Your task to perform on an android device: turn notification dots on Image 0: 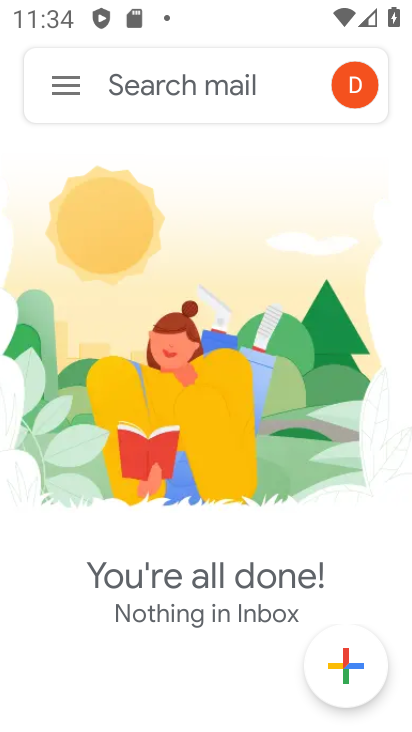
Step 0: press home button
Your task to perform on an android device: turn notification dots on Image 1: 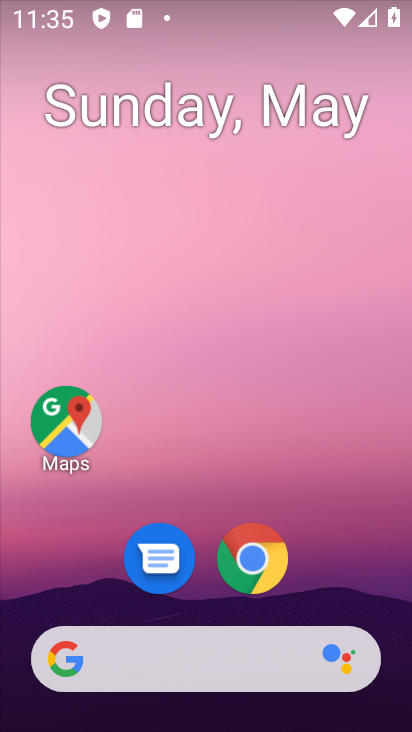
Step 1: drag from (379, 582) to (365, 137)
Your task to perform on an android device: turn notification dots on Image 2: 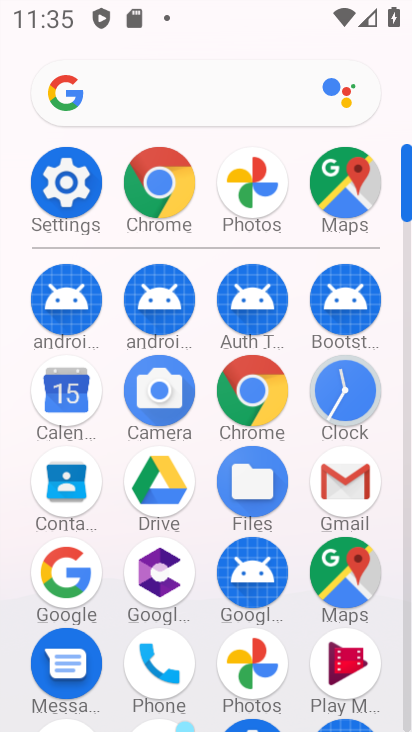
Step 2: click (74, 192)
Your task to perform on an android device: turn notification dots on Image 3: 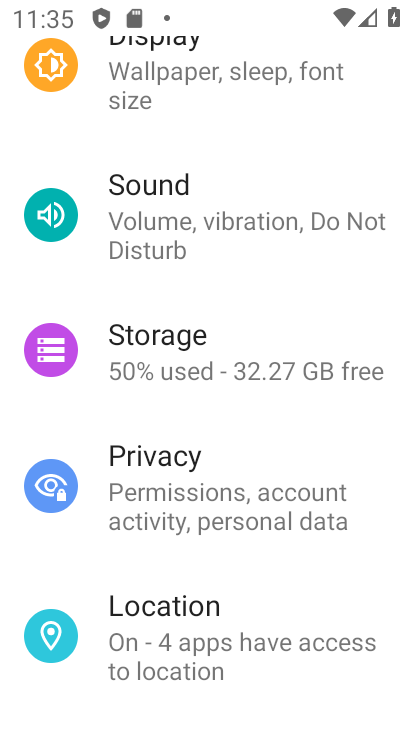
Step 3: drag from (351, 282) to (351, 566)
Your task to perform on an android device: turn notification dots on Image 4: 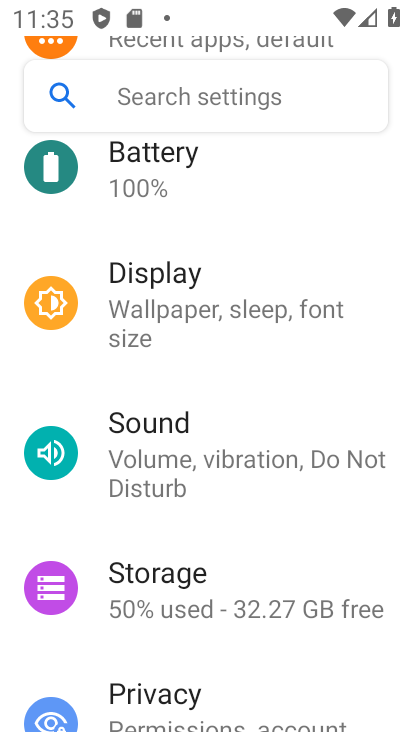
Step 4: drag from (371, 180) to (356, 457)
Your task to perform on an android device: turn notification dots on Image 5: 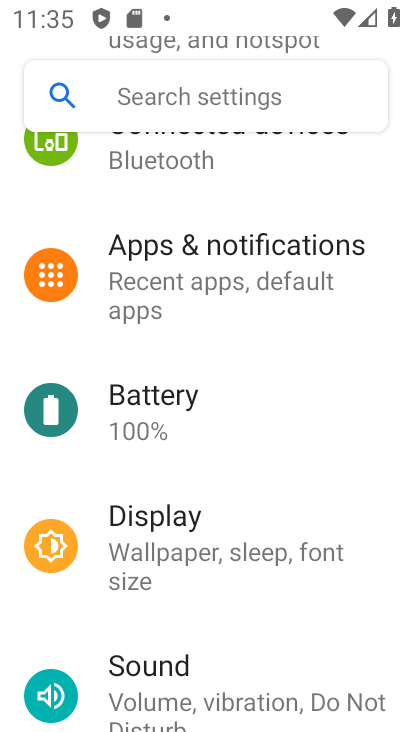
Step 5: drag from (360, 301) to (335, 545)
Your task to perform on an android device: turn notification dots on Image 6: 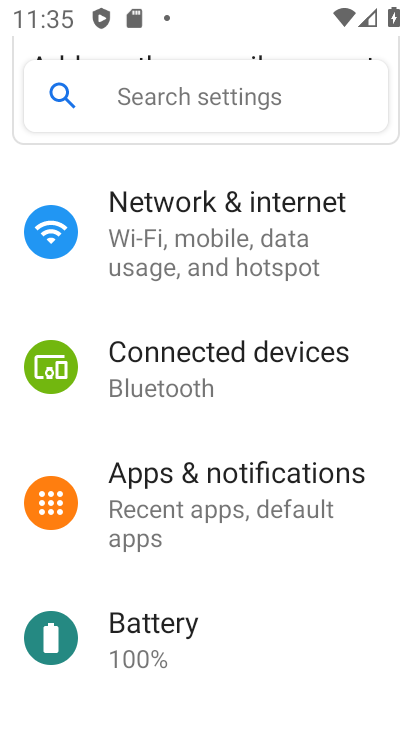
Step 6: drag from (384, 288) to (365, 542)
Your task to perform on an android device: turn notification dots on Image 7: 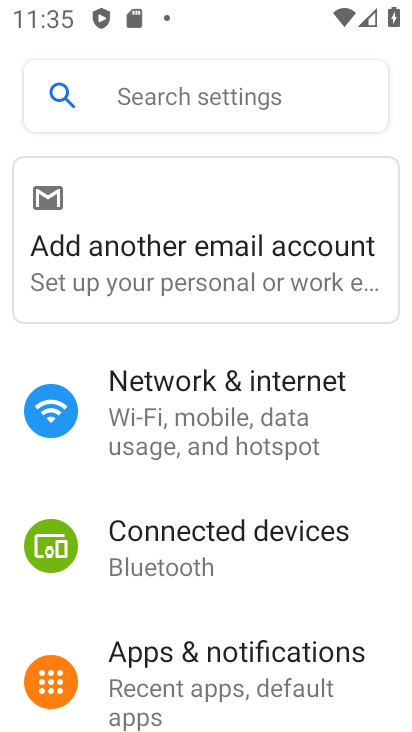
Step 7: drag from (362, 578) to (379, 423)
Your task to perform on an android device: turn notification dots on Image 8: 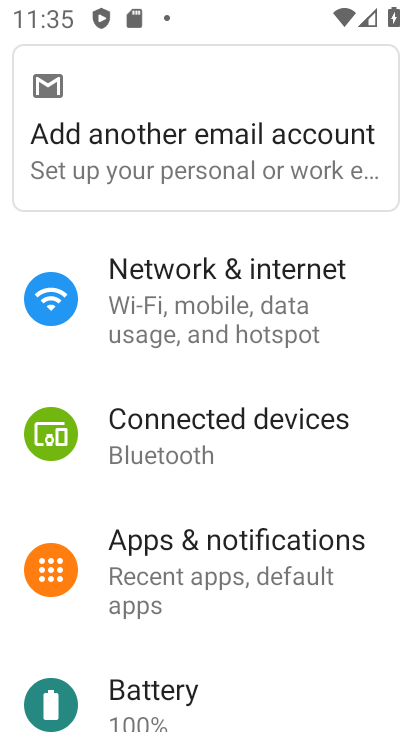
Step 8: click (255, 572)
Your task to perform on an android device: turn notification dots on Image 9: 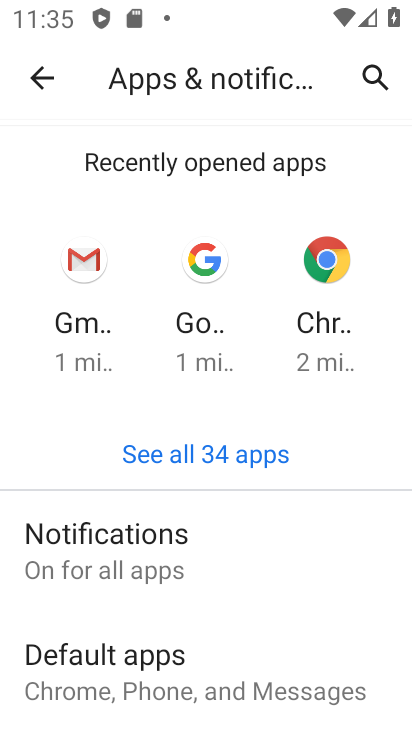
Step 9: drag from (253, 573) to (250, 379)
Your task to perform on an android device: turn notification dots on Image 10: 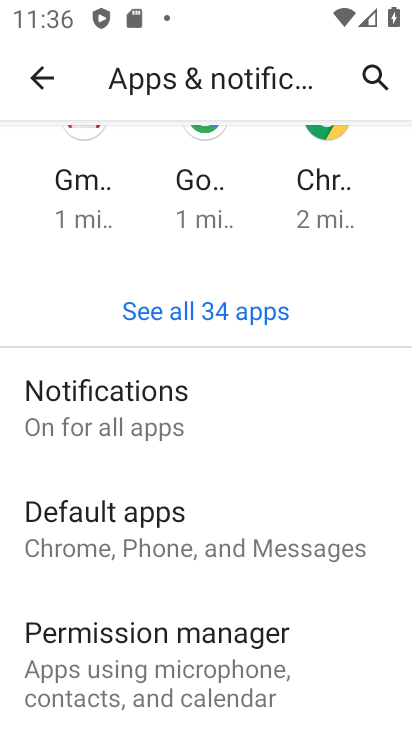
Step 10: drag from (341, 658) to (352, 386)
Your task to perform on an android device: turn notification dots on Image 11: 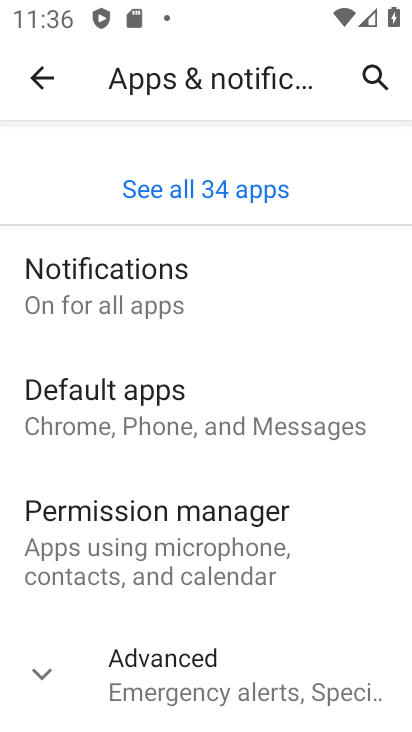
Step 11: click (86, 289)
Your task to perform on an android device: turn notification dots on Image 12: 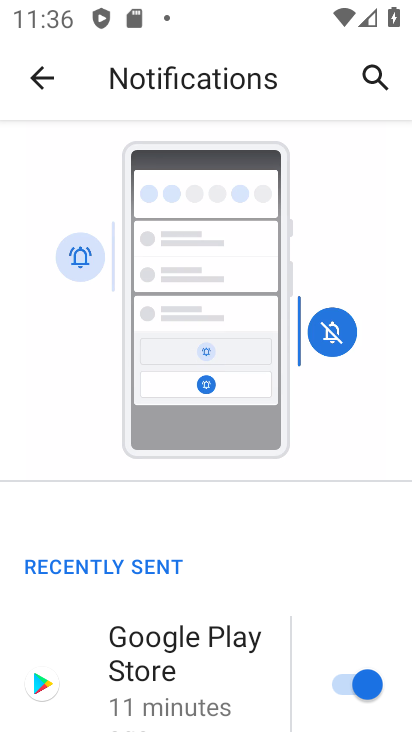
Step 12: drag from (243, 576) to (260, 306)
Your task to perform on an android device: turn notification dots on Image 13: 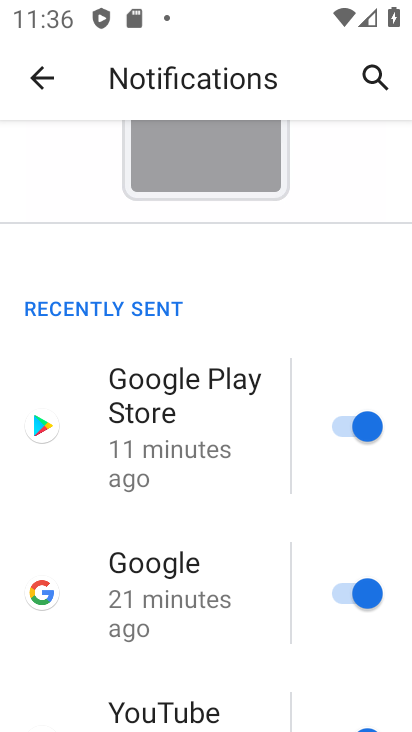
Step 13: drag from (256, 646) to (256, 383)
Your task to perform on an android device: turn notification dots on Image 14: 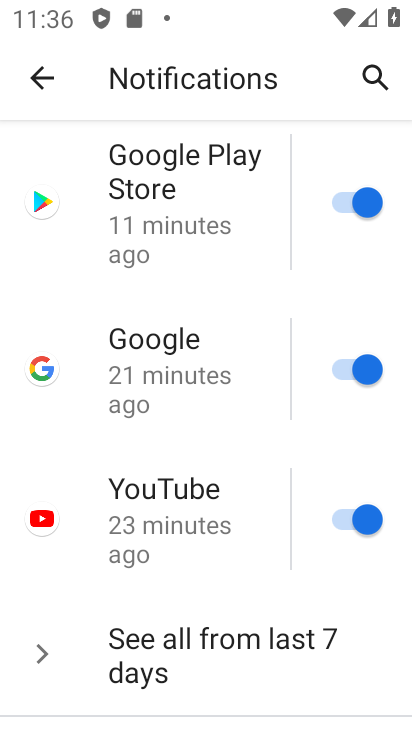
Step 14: drag from (251, 680) to (254, 302)
Your task to perform on an android device: turn notification dots on Image 15: 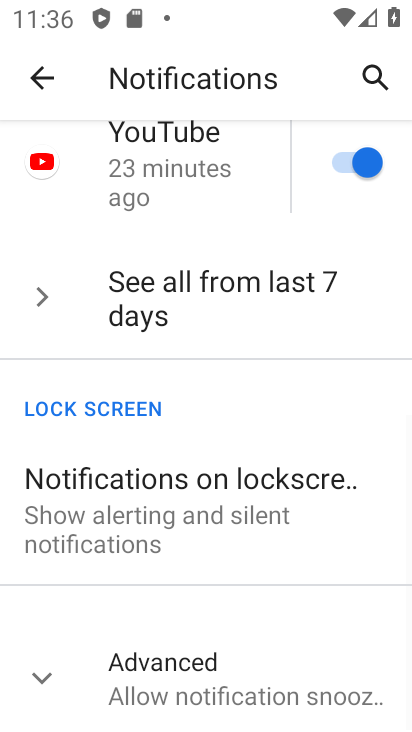
Step 15: drag from (240, 584) to (238, 383)
Your task to perform on an android device: turn notification dots on Image 16: 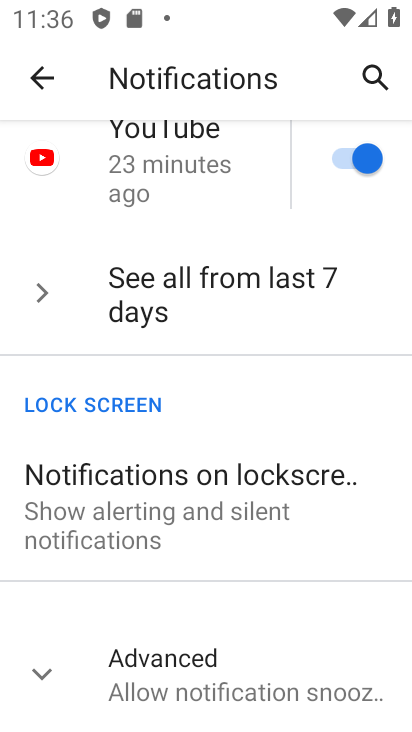
Step 16: click (213, 671)
Your task to perform on an android device: turn notification dots on Image 17: 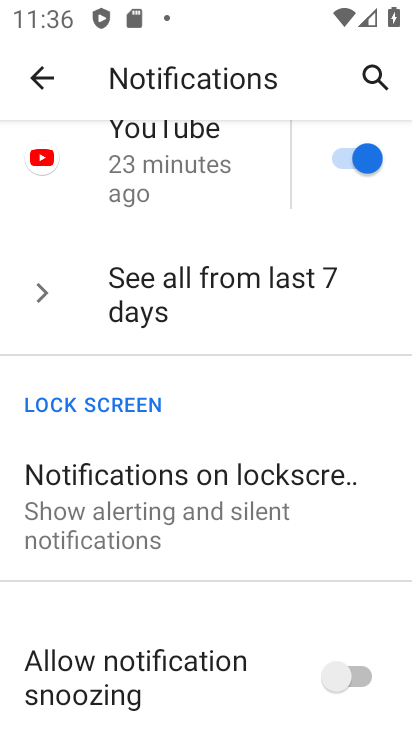
Step 17: task complete